Your task to perform on an android device: Search for Mexican restaurants on Maps Image 0: 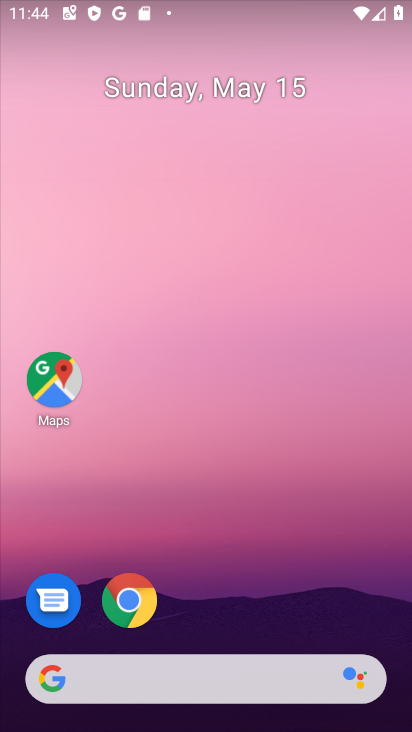
Step 0: click (69, 373)
Your task to perform on an android device: Search for Mexican restaurants on Maps Image 1: 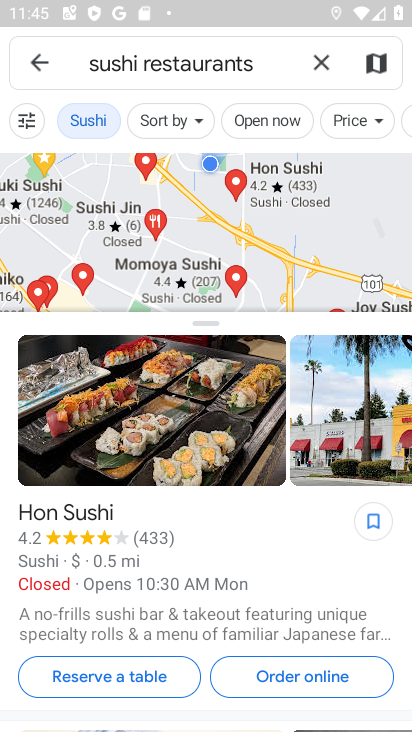
Step 1: click (324, 58)
Your task to perform on an android device: Search for Mexican restaurants on Maps Image 2: 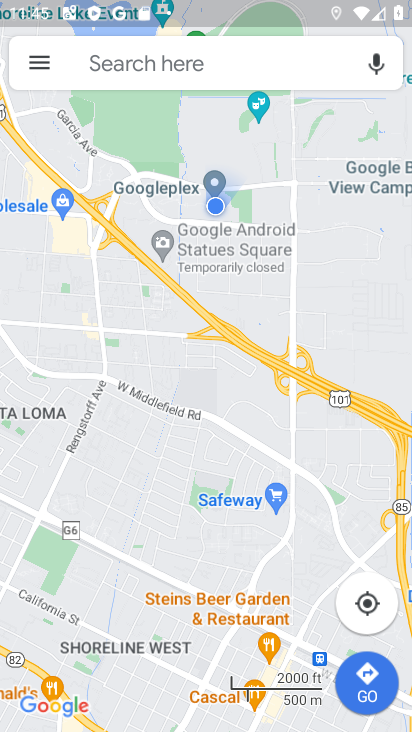
Step 2: click (231, 66)
Your task to perform on an android device: Search for Mexican restaurants on Maps Image 3: 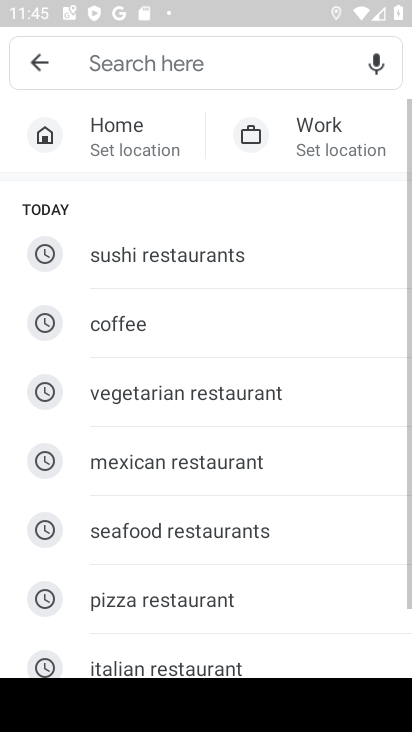
Step 3: click (134, 460)
Your task to perform on an android device: Search for Mexican restaurants on Maps Image 4: 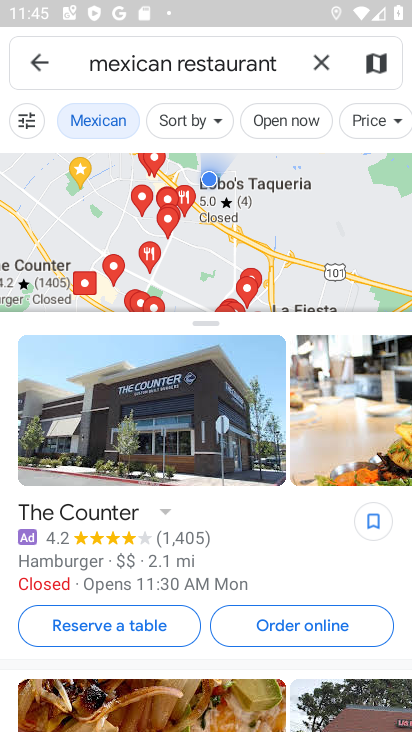
Step 4: task complete